Your task to perform on an android device: toggle priority inbox in the gmail app Image 0: 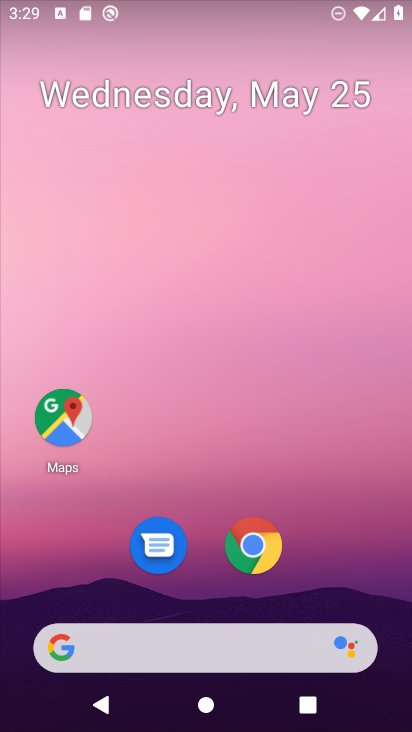
Step 0: drag from (334, 570) to (274, 90)
Your task to perform on an android device: toggle priority inbox in the gmail app Image 1: 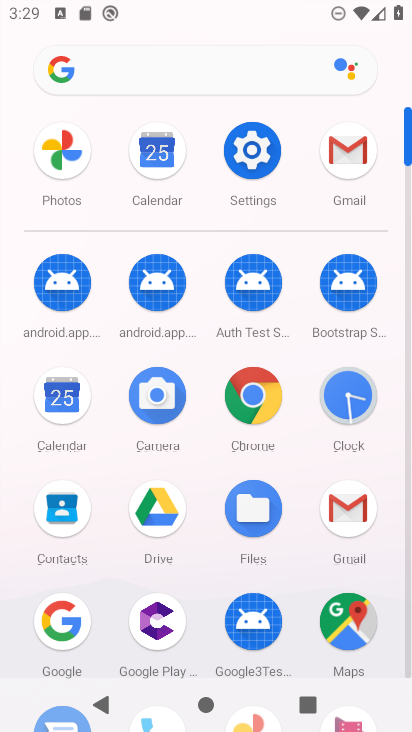
Step 1: click (346, 176)
Your task to perform on an android device: toggle priority inbox in the gmail app Image 2: 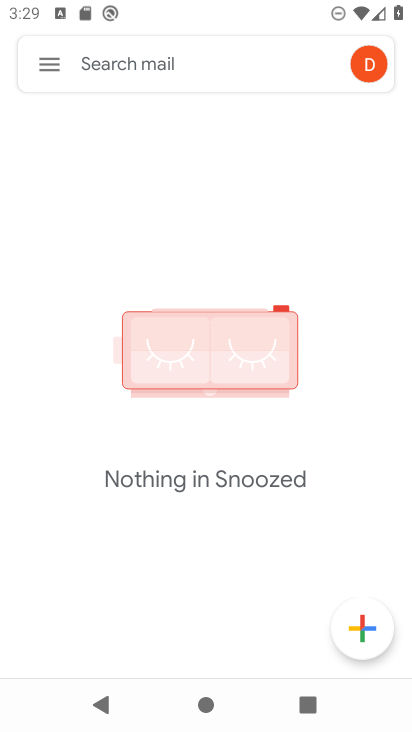
Step 2: task complete